Your task to perform on an android device: remove spam from my inbox in the gmail app Image 0: 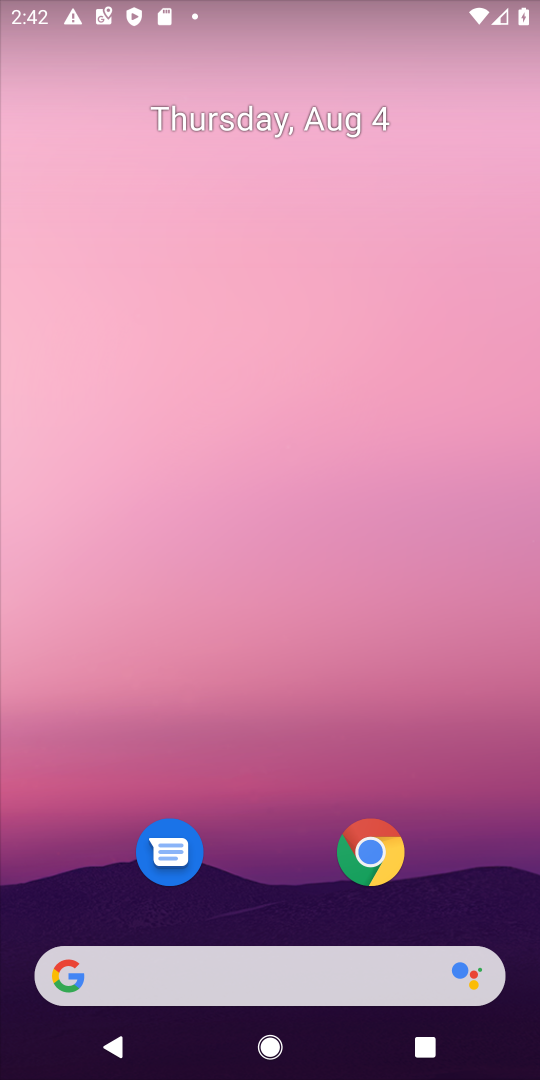
Step 0: drag from (256, 826) to (339, 113)
Your task to perform on an android device: remove spam from my inbox in the gmail app Image 1: 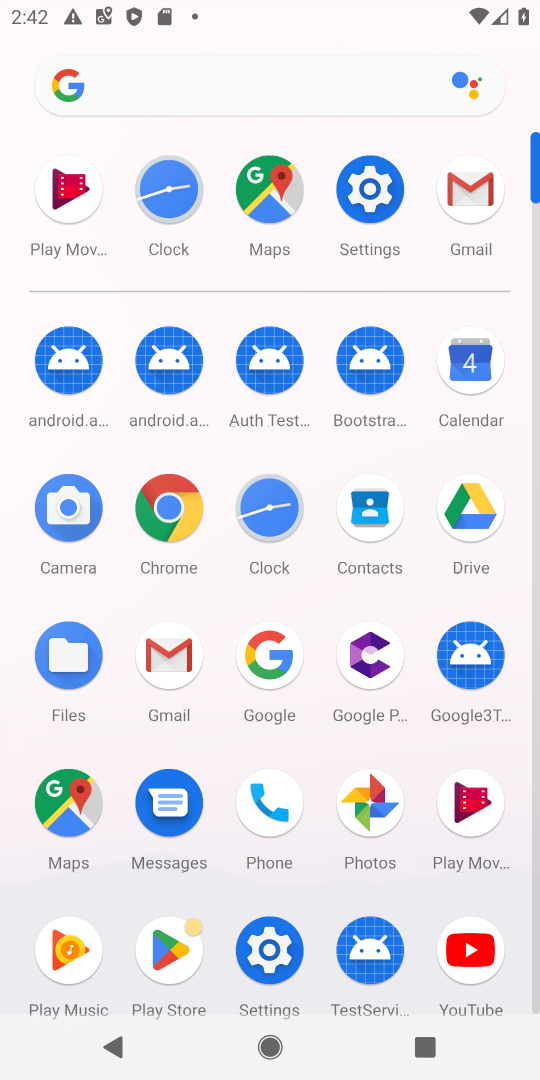
Step 1: click (469, 195)
Your task to perform on an android device: remove spam from my inbox in the gmail app Image 2: 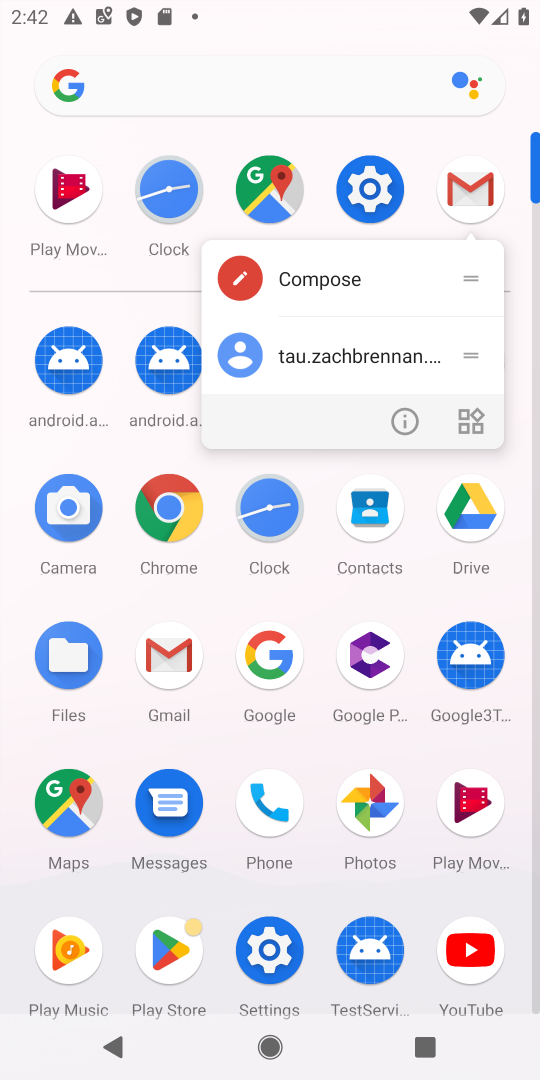
Step 2: click (471, 192)
Your task to perform on an android device: remove spam from my inbox in the gmail app Image 3: 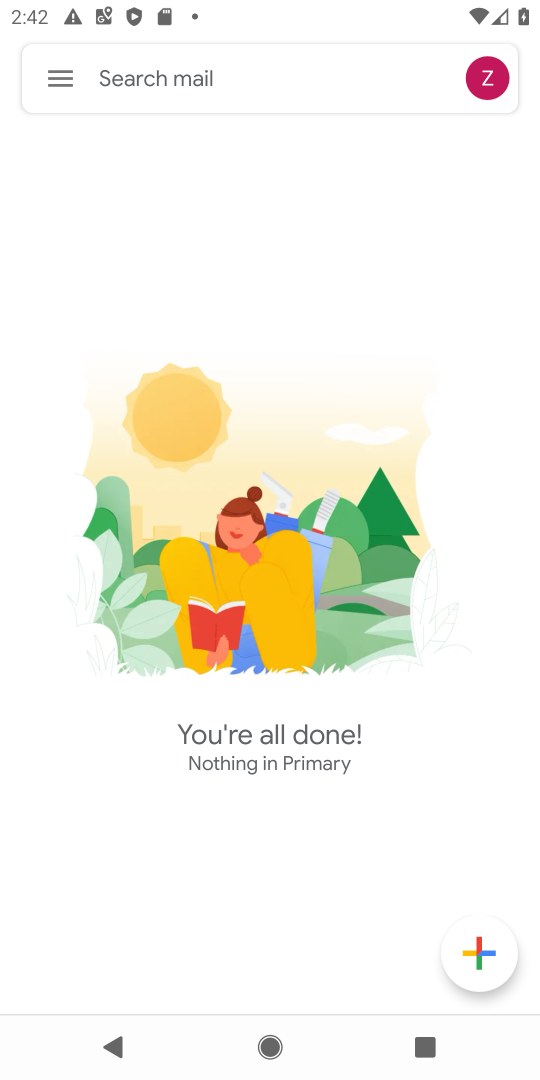
Step 3: click (66, 71)
Your task to perform on an android device: remove spam from my inbox in the gmail app Image 4: 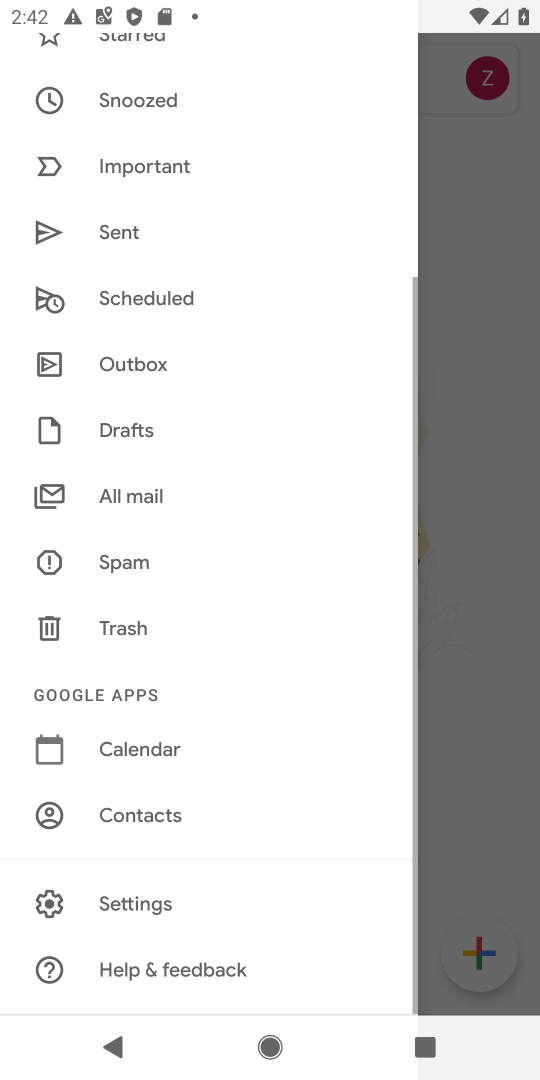
Step 4: click (111, 577)
Your task to perform on an android device: remove spam from my inbox in the gmail app Image 5: 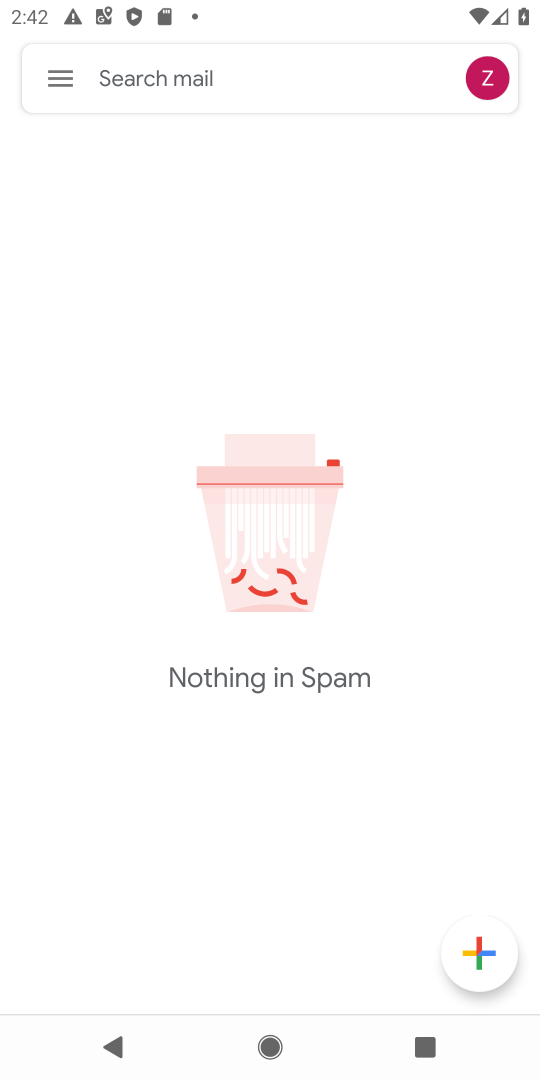
Step 5: task complete